Your task to perform on an android device: Go to Google maps Image 0: 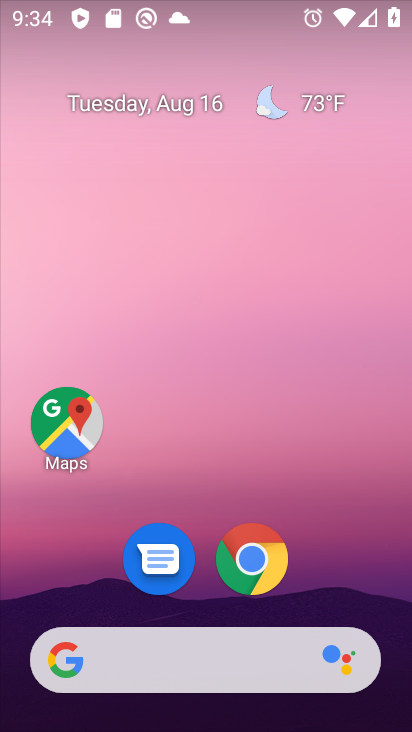
Step 0: drag from (195, 664) to (266, 165)
Your task to perform on an android device: Go to Google maps Image 1: 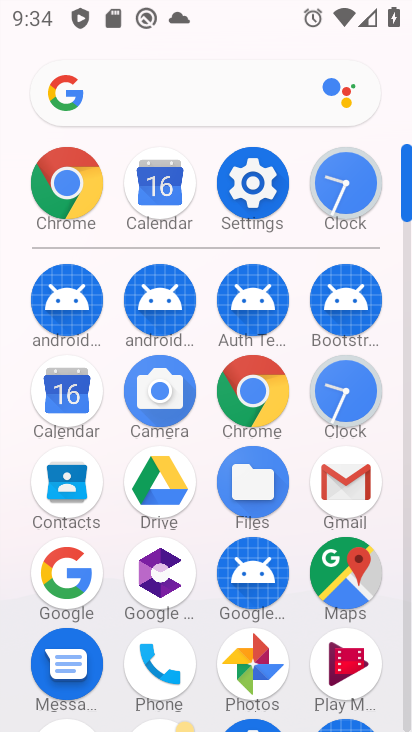
Step 1: click (347, 575)
Your task to perform on an android device: Go to Google maps Image 2: 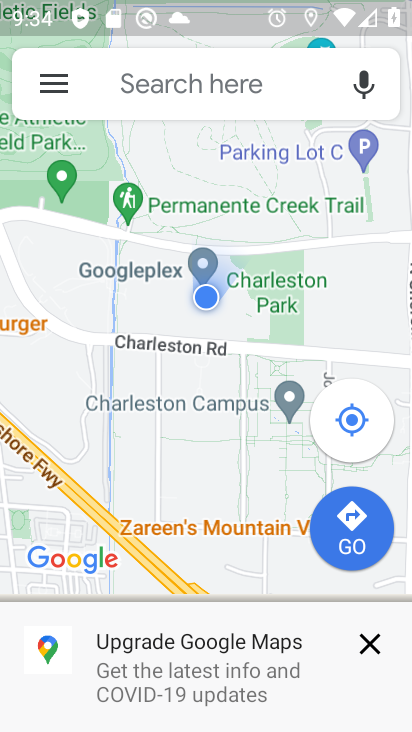
Step 2: task complete